Your task to perform on an android device: Open settings on Google Maps Image 0: 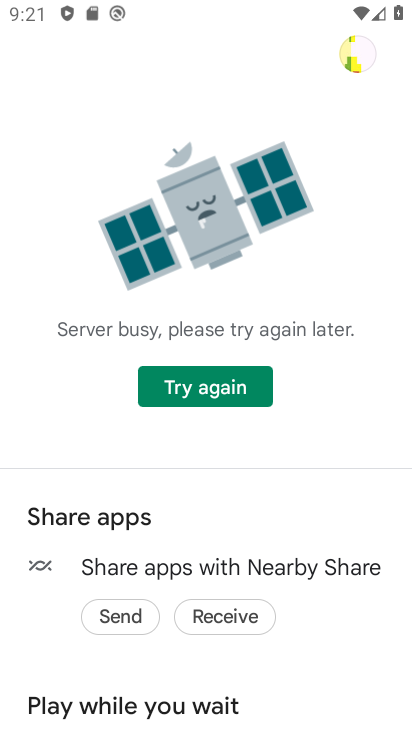
Step 0: press back button
Your task to perform on an android device: Open settings on Google Maps Image 1: 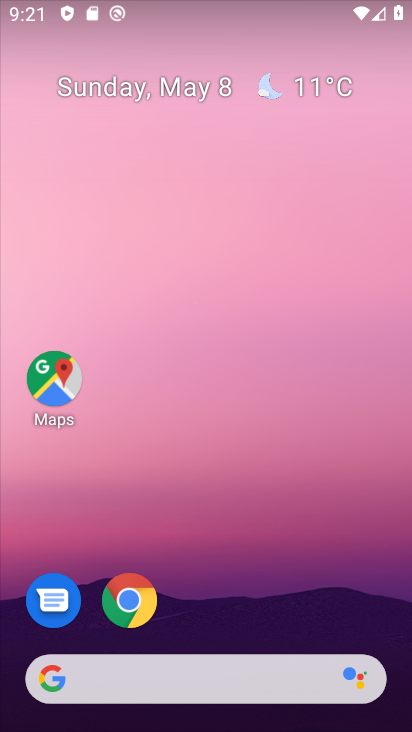
Step 1: drag from (209, 592) to (223, 17)
Your task to perform on an android device: Open settings on Google Maps Image 2: 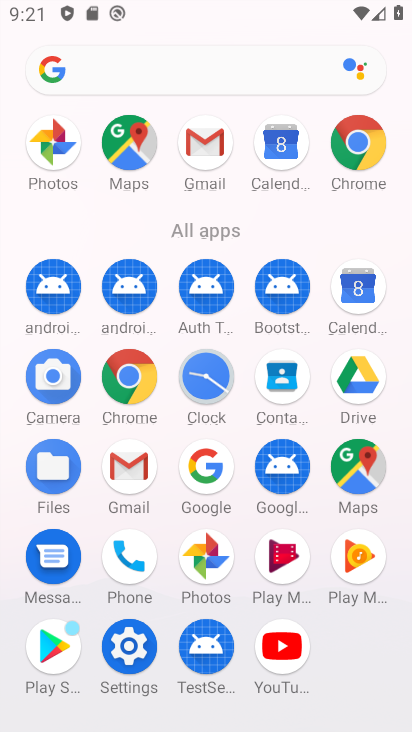
Step 2: click (352, 459)
Your task to perform on an android device: Open settings on Google Maps Image 3: 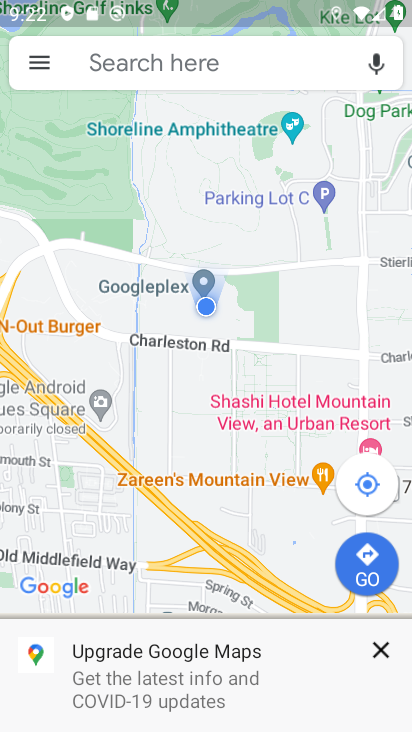
Step 3: click (34, 64)
Your task to perform on an android device: Open settings on Google Maps Image 4: 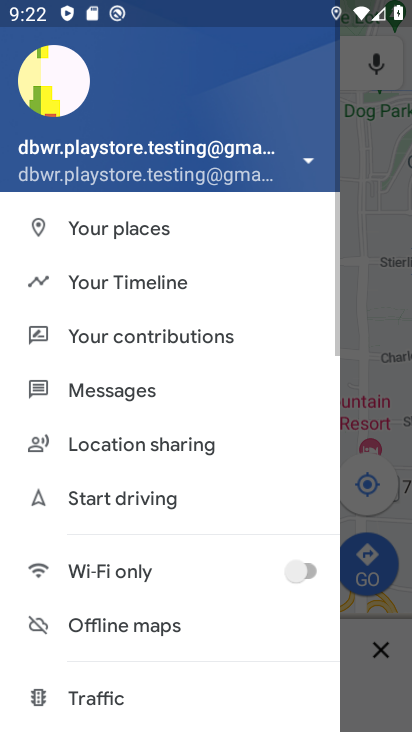
Step 4: drag from (192, 599) to (225, 191)
Your task to perform on an android device: Open settings on Google Maps Image 5: 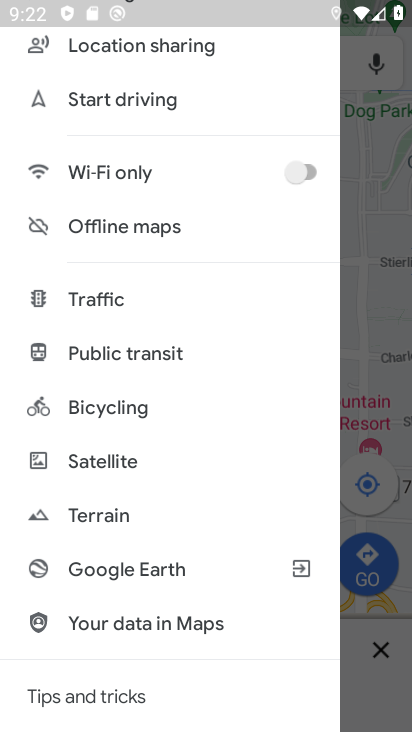
Step 5: drag from (167, 585) to (167, 137)
Your task to perform on an android device: Open settings on Google Maps Image 6: 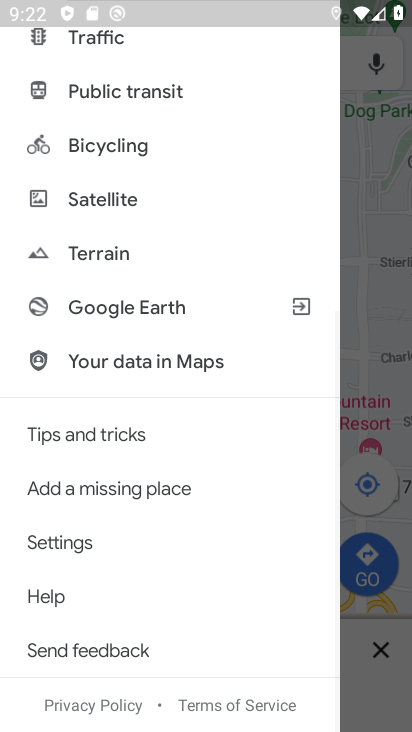
Step 6: click (100, 544)
Your task to perform on an android device: Open settings on Google Maps Image 7: 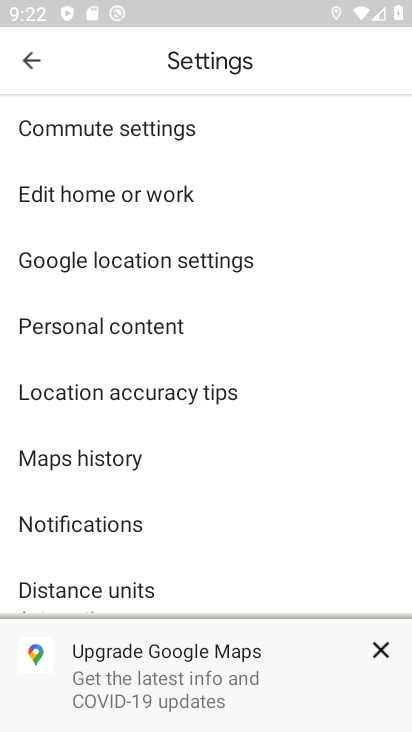
Step 7: task complete